Your task to perform on an android device: check the backup settings in the google photos Image 0: 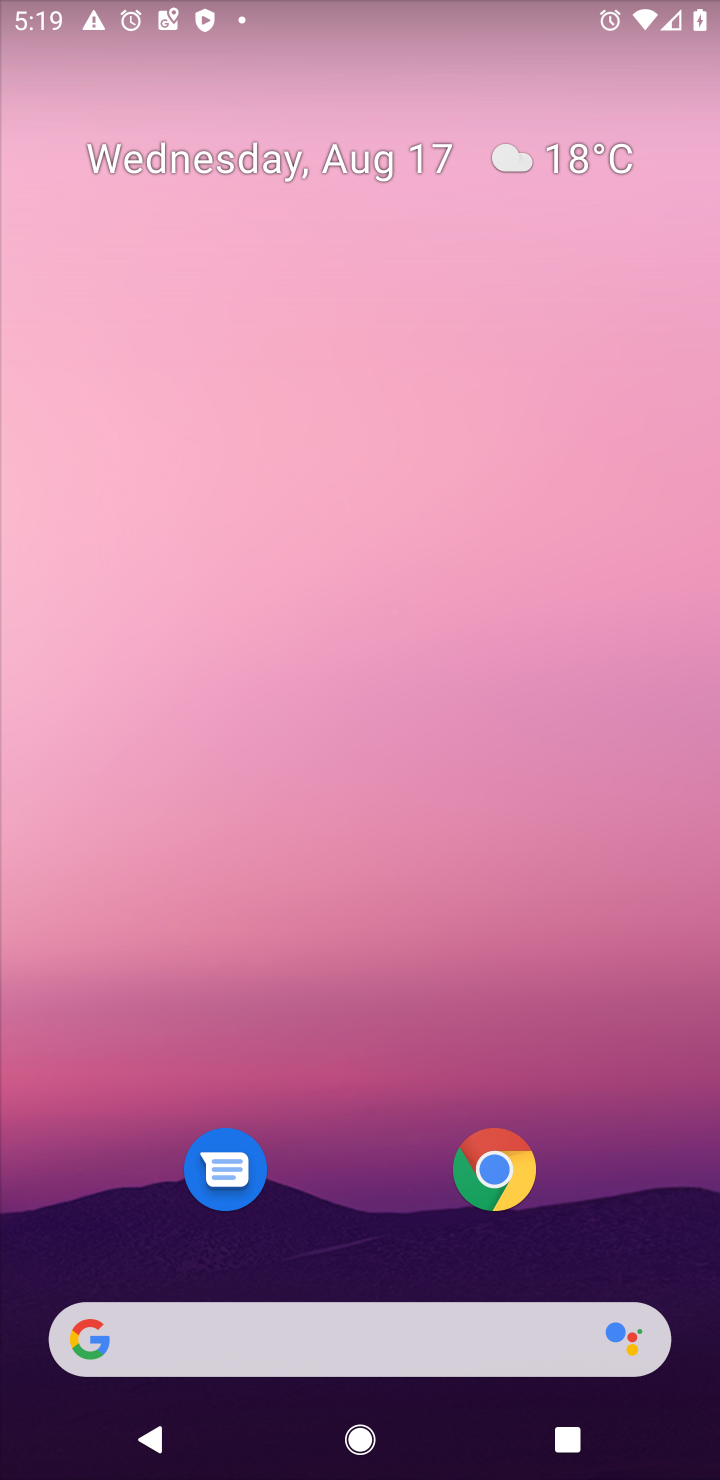
Step 0: drag from (409, 1227) to (454, 168)
Your task to perform on an android device: check the backup settings in the google photos Image 1: 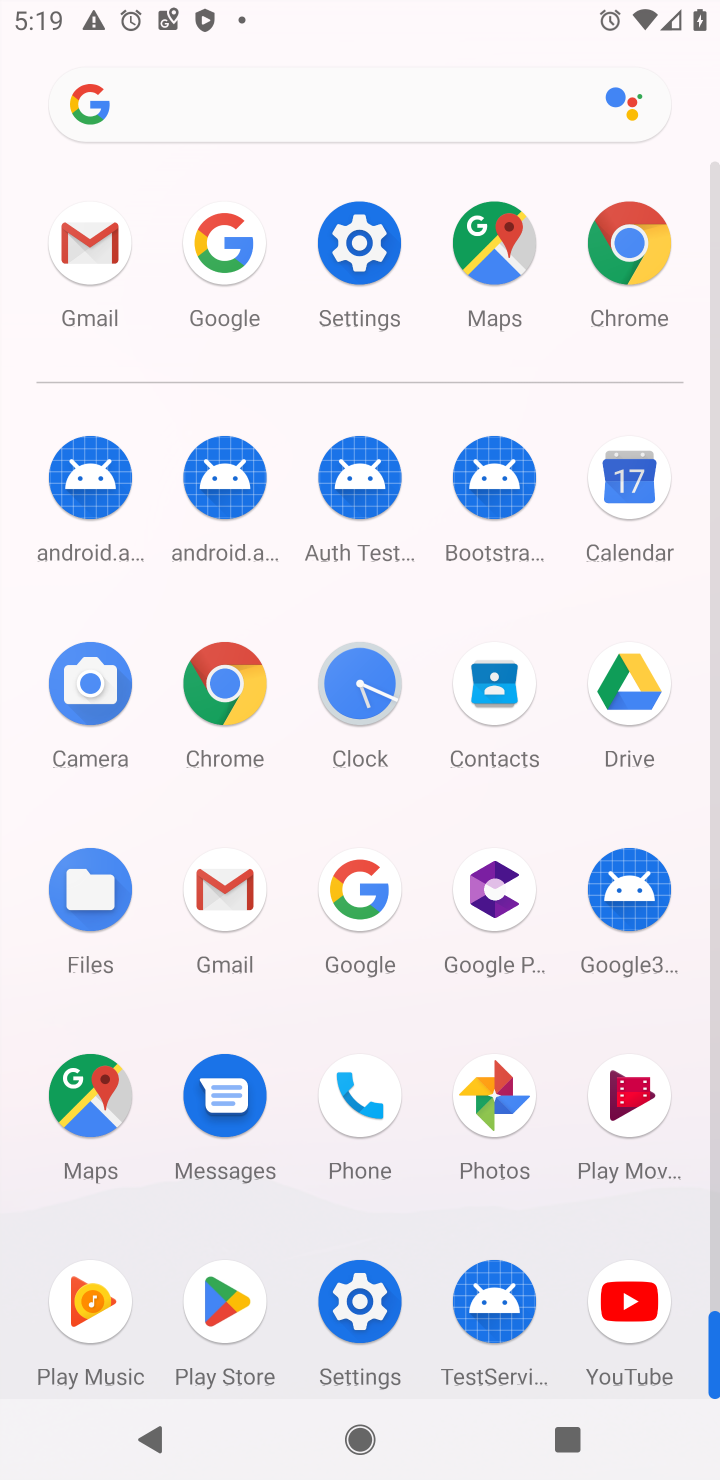
Step 1: click (360, 1305)
Your task to perform on an android device: check the backup settings in the google photos Image 2: 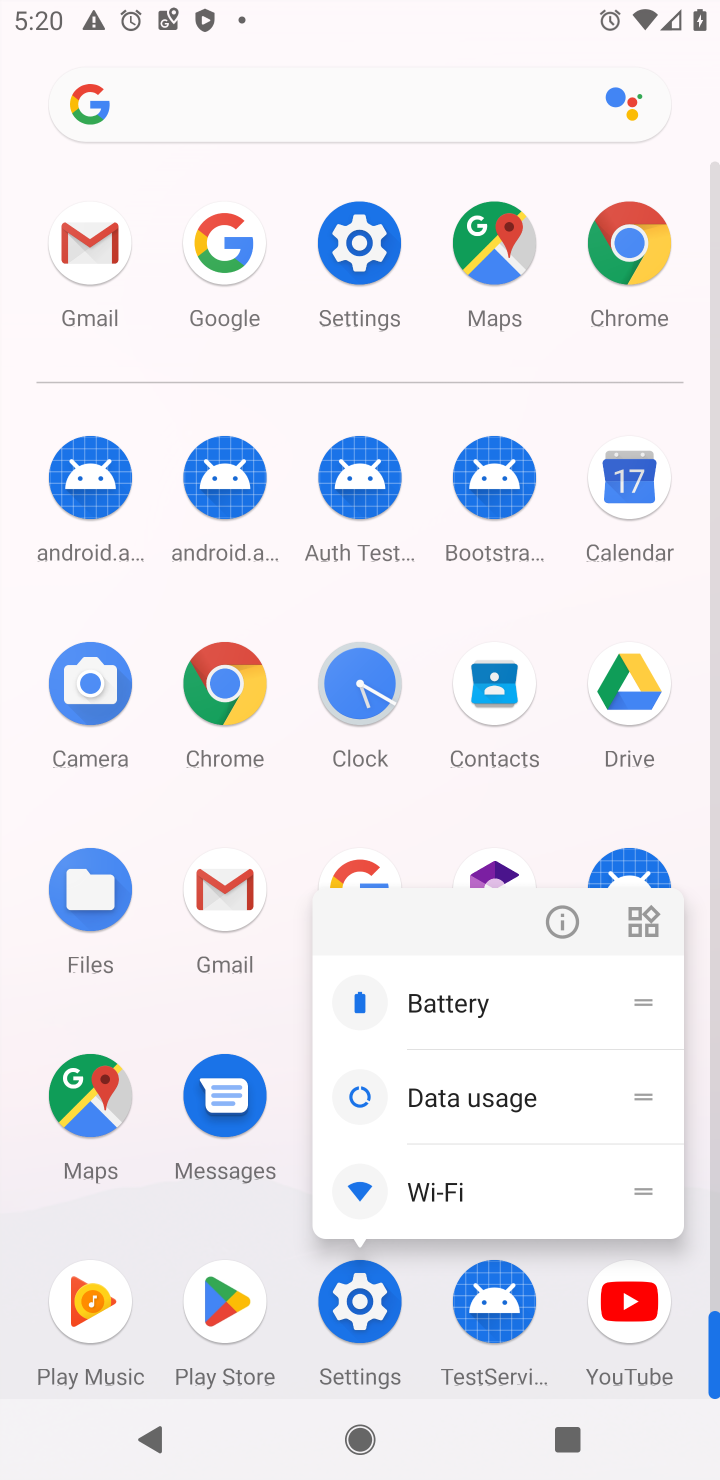
Step 2: click (361, 1293)
Your task to perform on an android device: check the backup settings in the google photos Image 3: 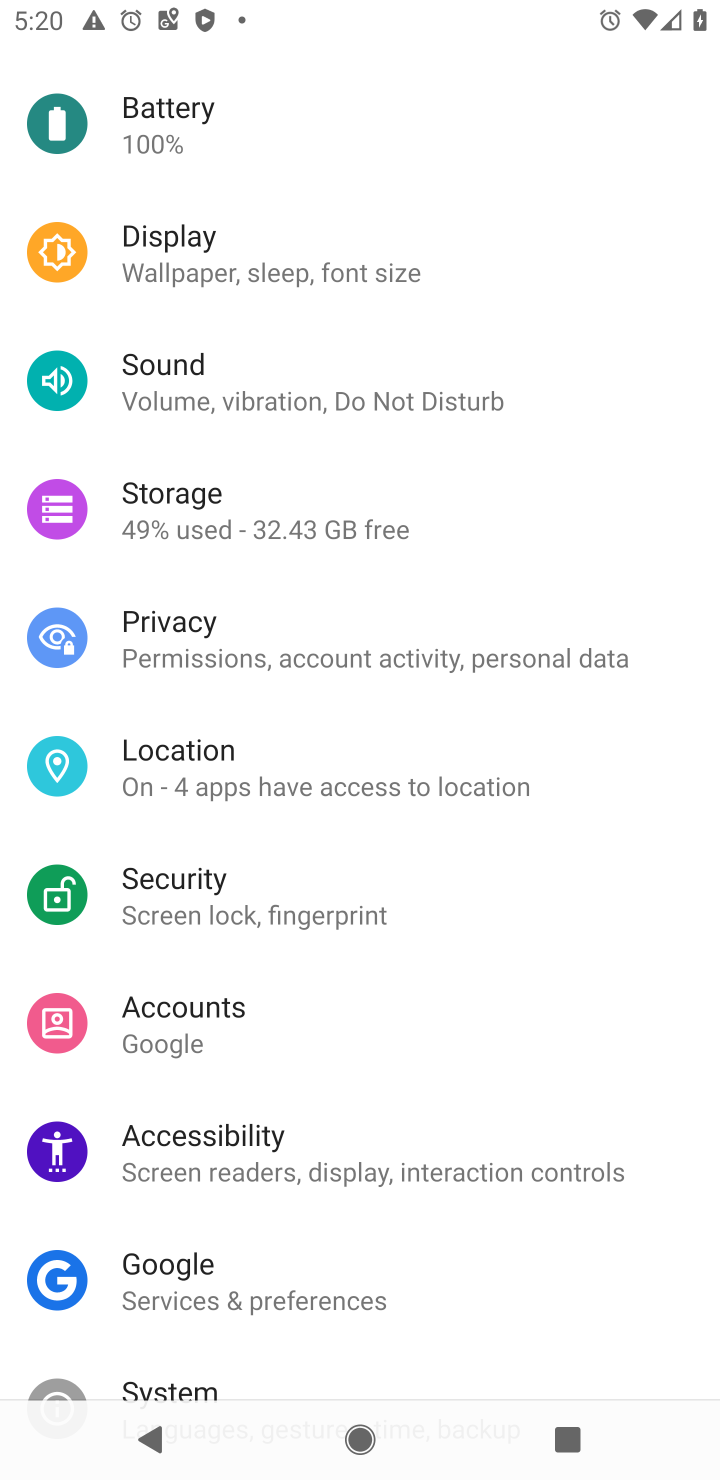
Step 3: press home button
Your task to perform on an android device: check the backup settings in the google photos Image 4: 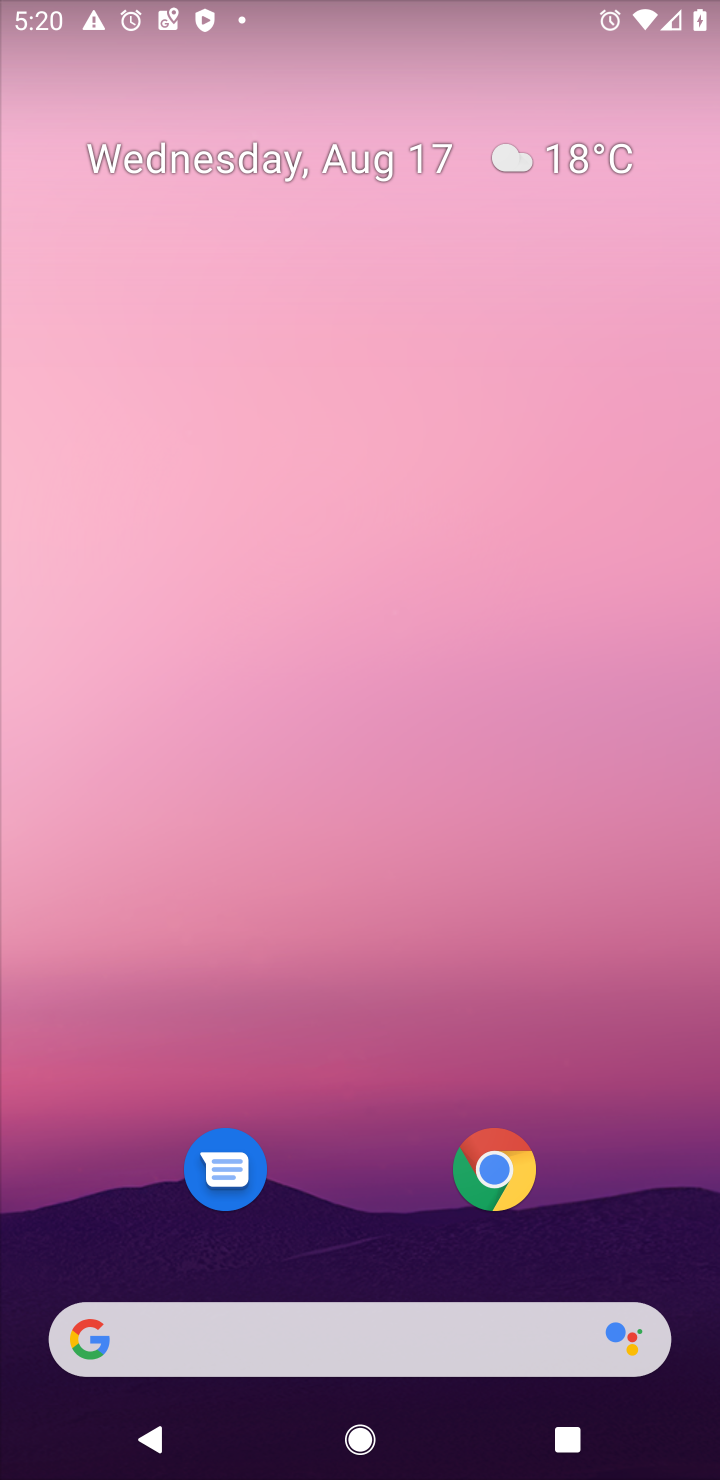
Step 4: drag from (372, 1202) to (351, 176)
Your task to perform on an android device: check the backup settings in the google photos Image 5: 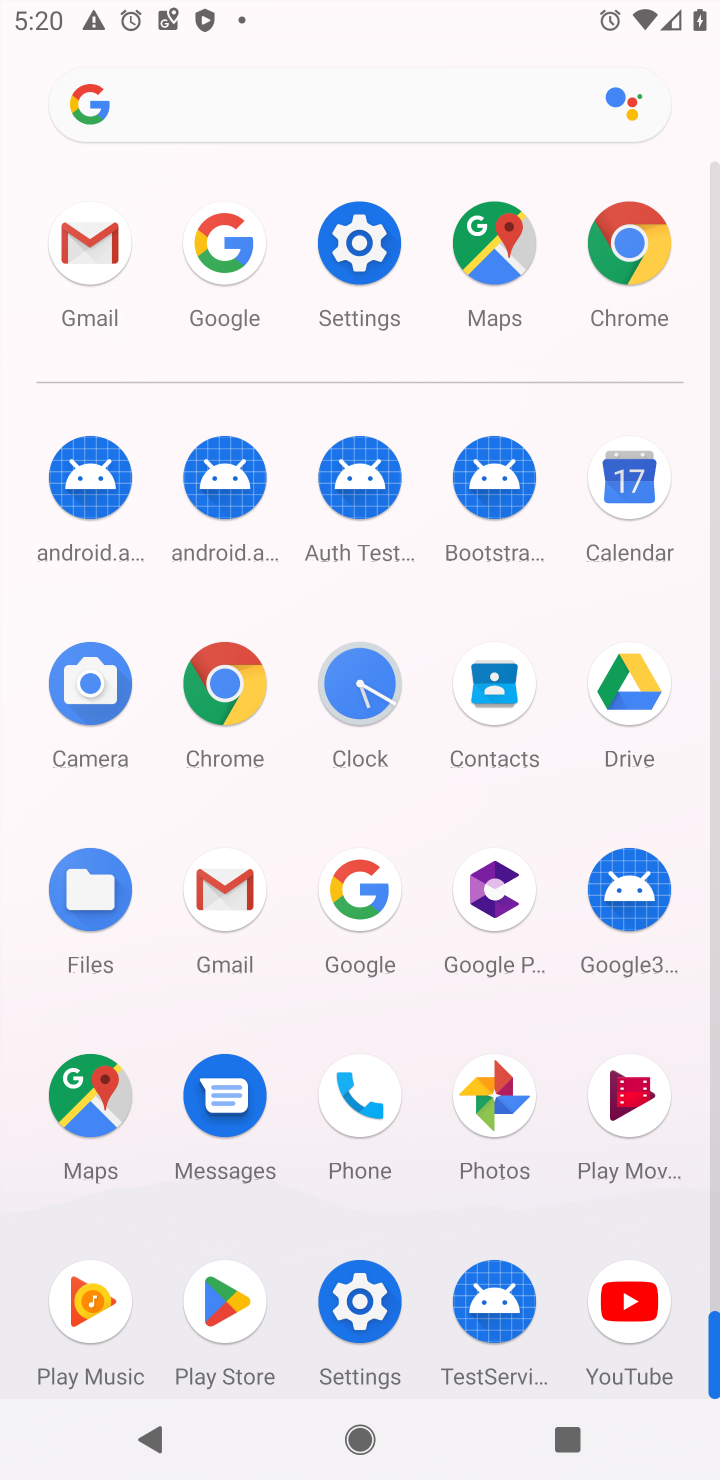
Step 5: click (489, 1086)
Your task to perform on an android device: check the backup settings in the google photos Image 6: 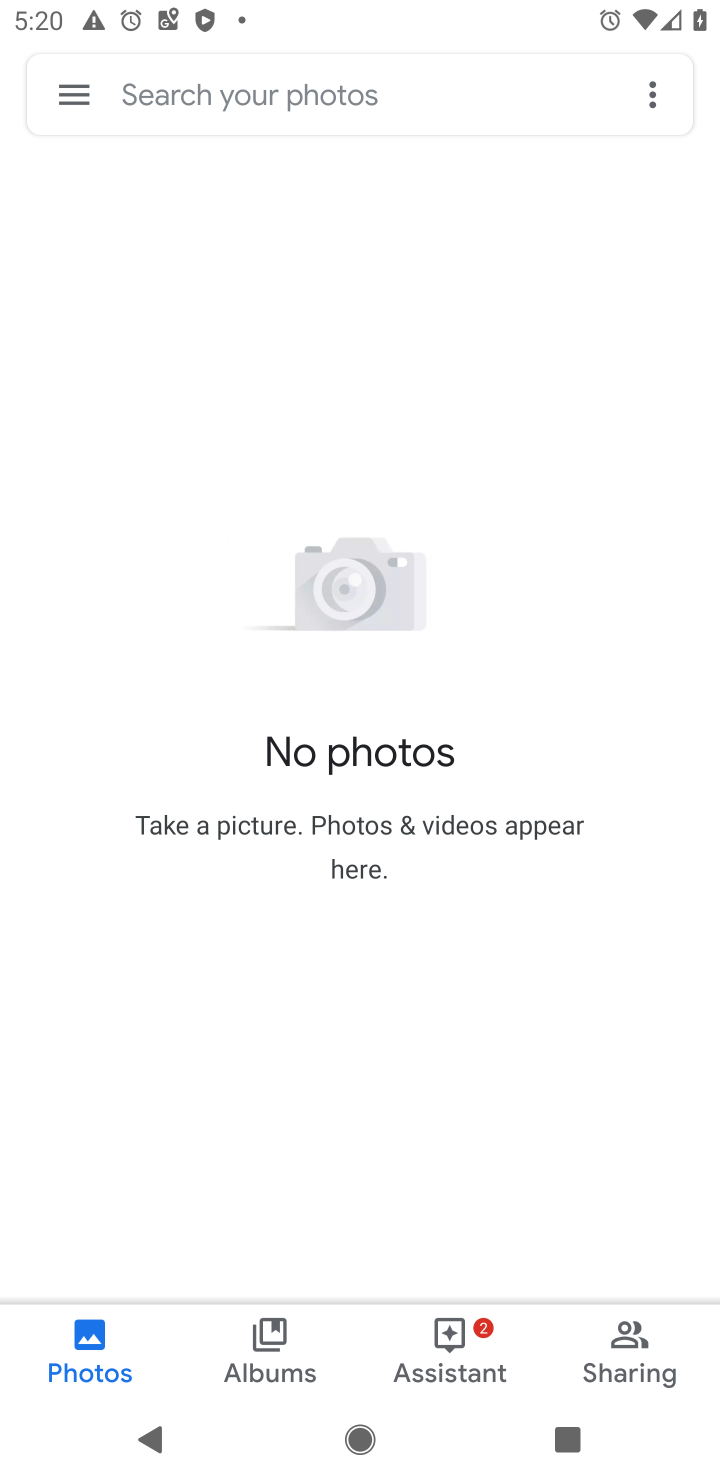
Step 6: click (57, 105)
Your task to perform on an android device: check the backup settings in the google photos Image 7: 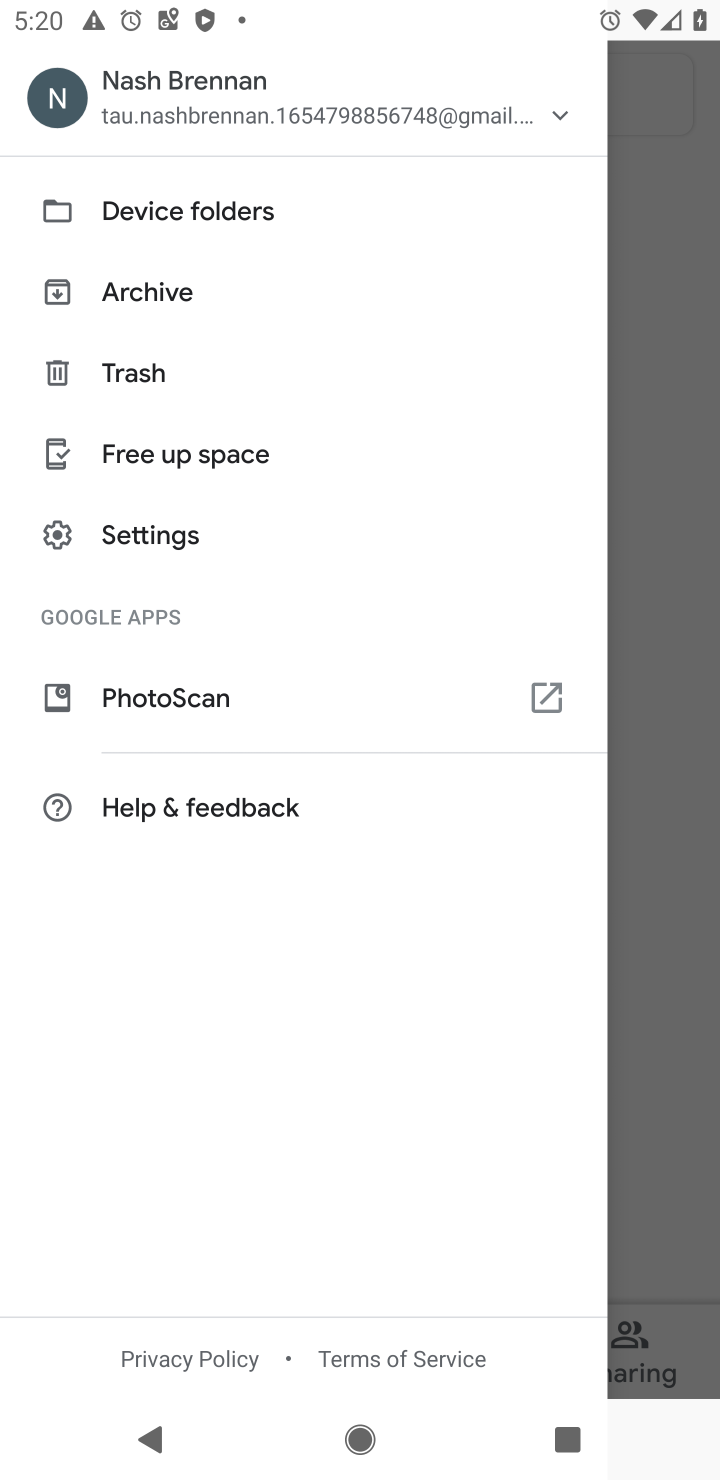
Step 7: click (153, 544)
Your task to perform on an android device: check the backup settings in the google photos Image 8: 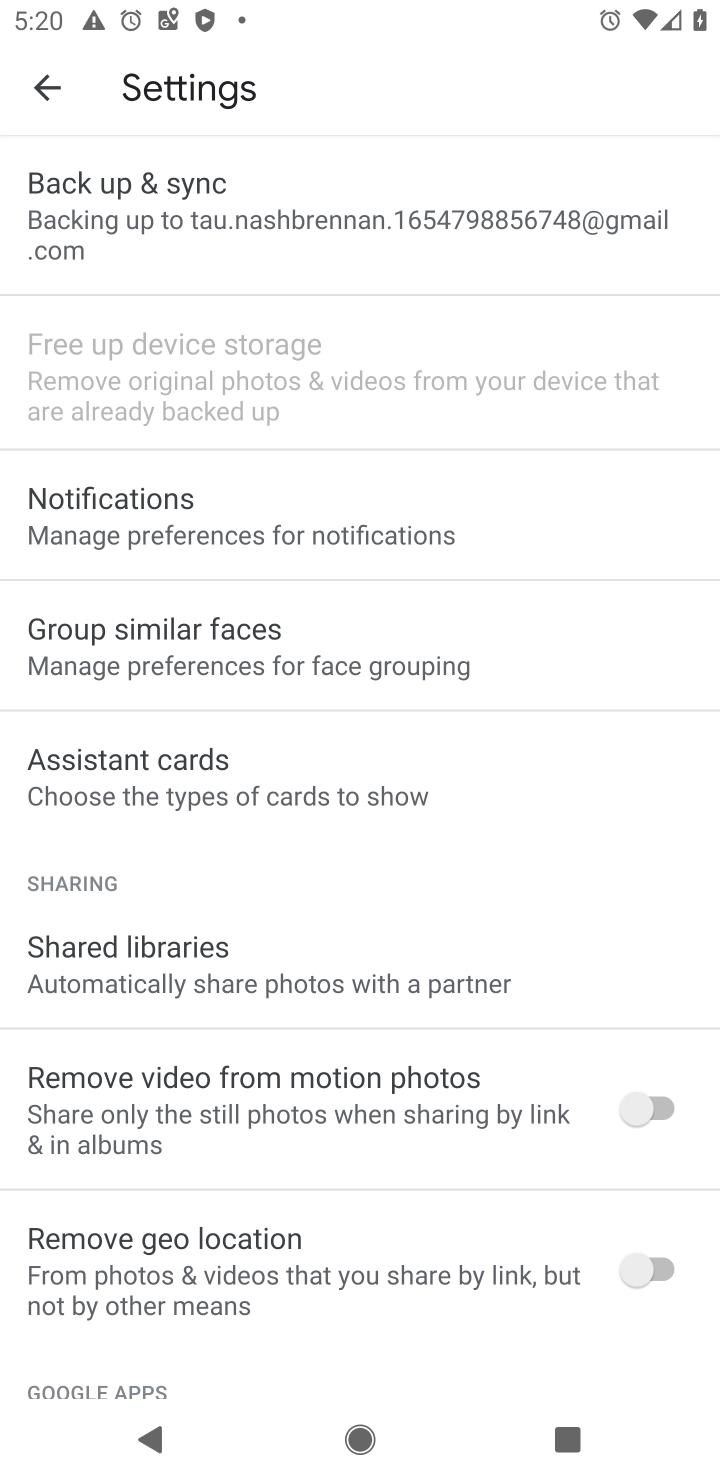
Step 8: click (218, 203)
Your task to perform on an android device: check the backup settings in the google photos Image 9: 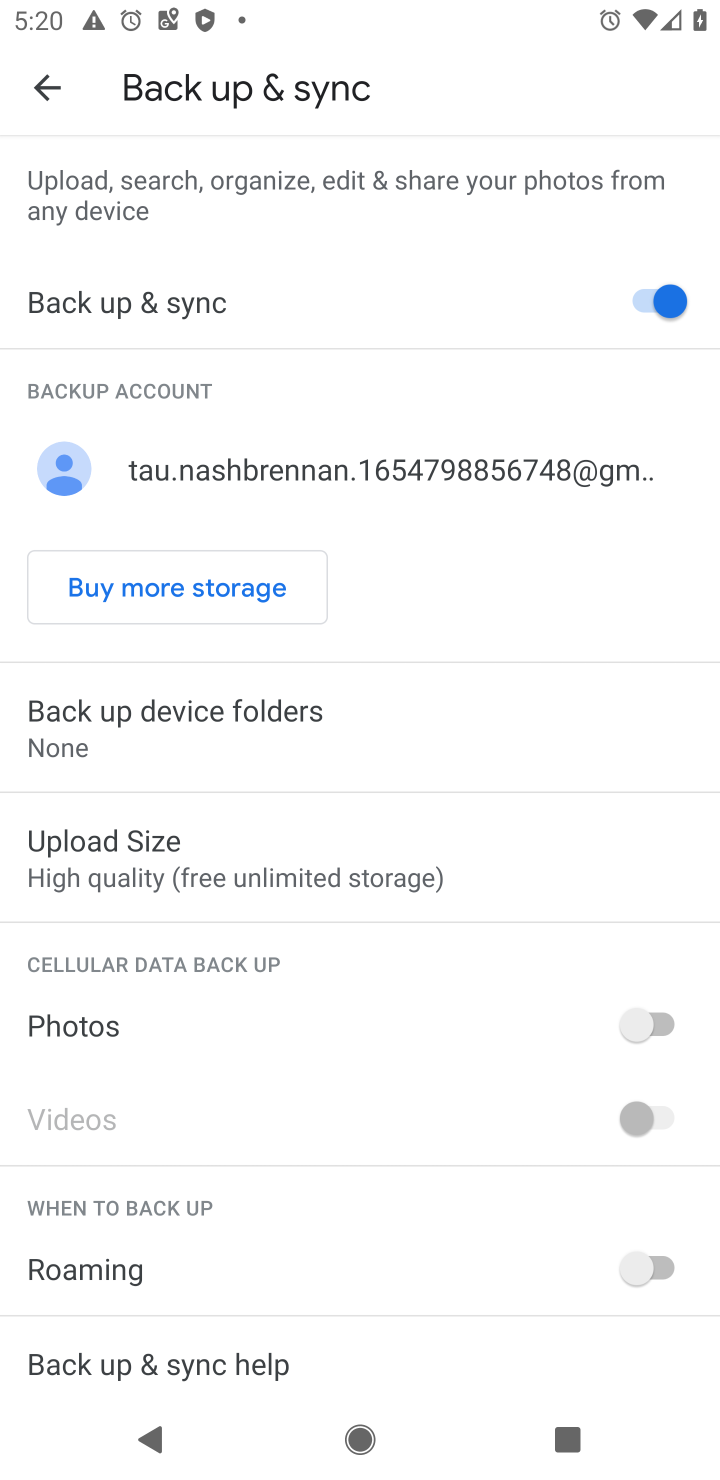
Step 9: task complete